Your task to perform on an android device: What's the weather going to be this weekend? Image 0: 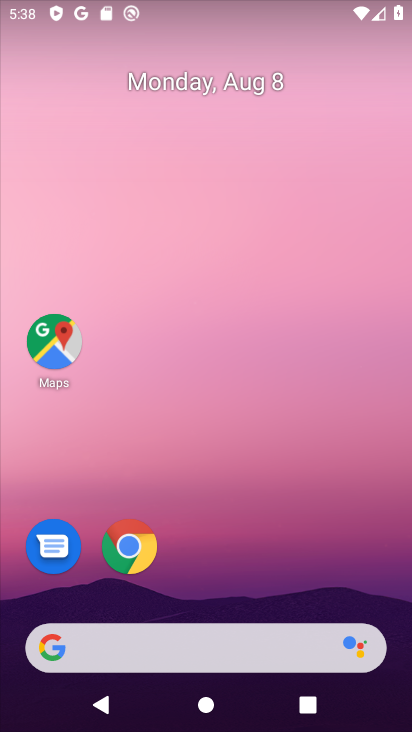
Step 0: drag from (221, 574) to (222, 199)
Your task to perform on an android device: What's the weather going to be this weekend? Image 1: 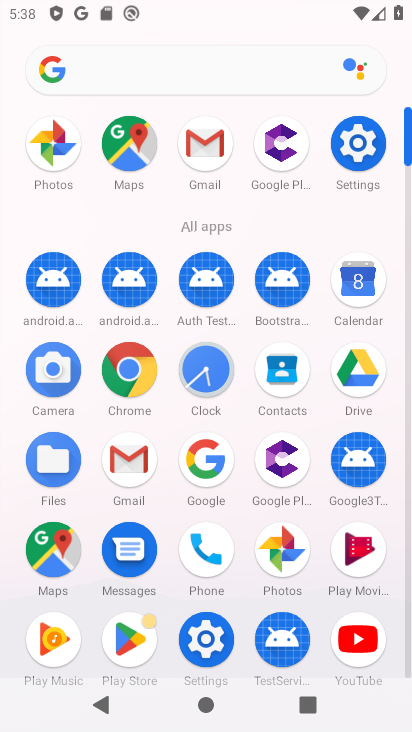
Step 1: click (209, 438)
Your task to perform on an android device: What's the weather going to be this weekend? Image 2: 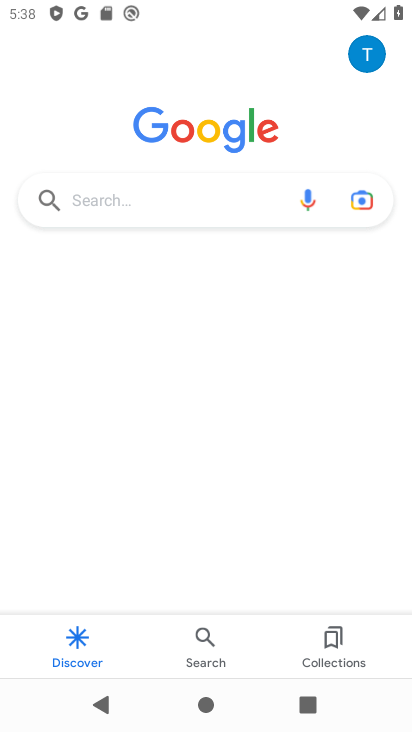
Step 2: click (145, 209)
Your task to perform on an android device: What's the weather going to be this weekend? Image 3: 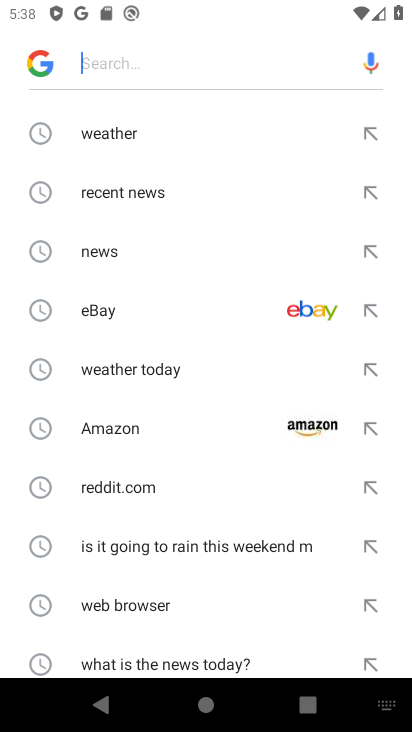
Step 3: click (115, 141)
Your task to perform on an android device: What's the weather going to be this weekend? Image 4: 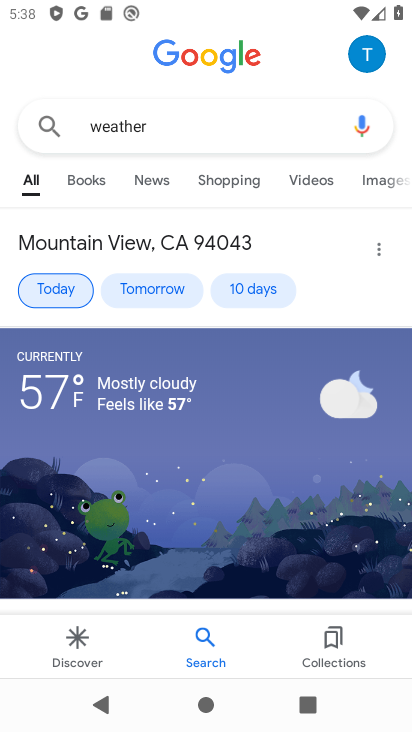
Step 4: click (270, 175)
Your task to perform on an android device: What's the weather going to be this weekend? Image 5: 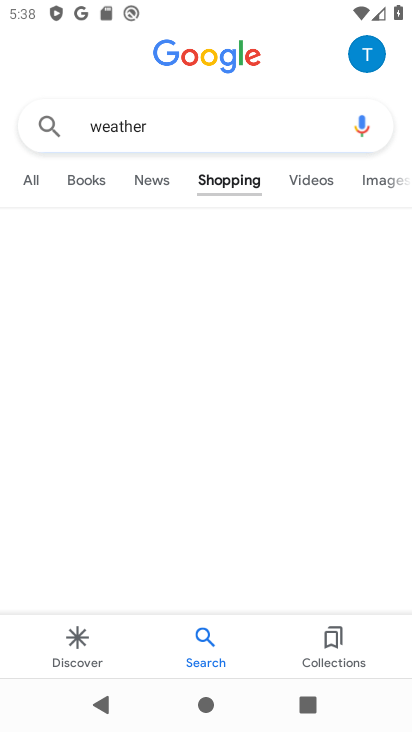
Step 5: click (270, 287)
Your task to perform on an android device: What's the weather going to be this weekend? Image 6: 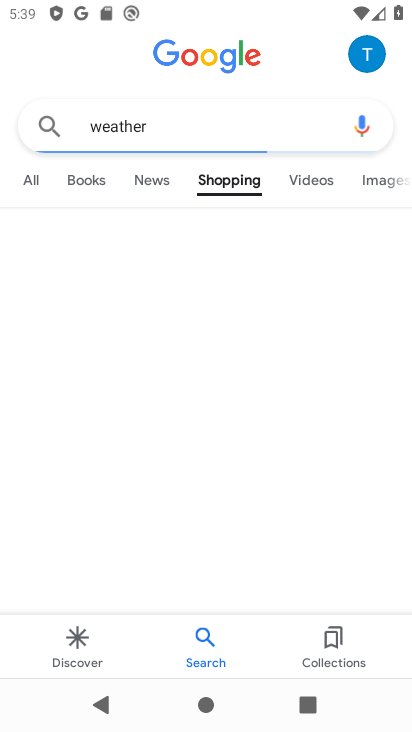
Step 6: click (37, 184)
Your task to perform on an android device: What's the weather going to be this weekend? Image 7: 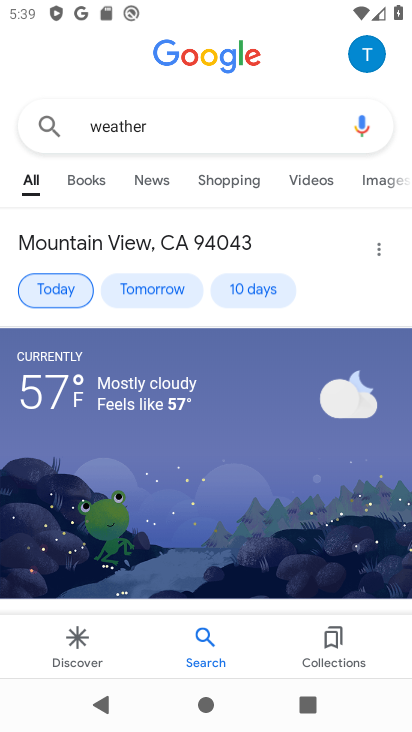
Step 7: click (252, 298)
Your task to perform on an android device: What's the weather going to be this weekend? Image 8: 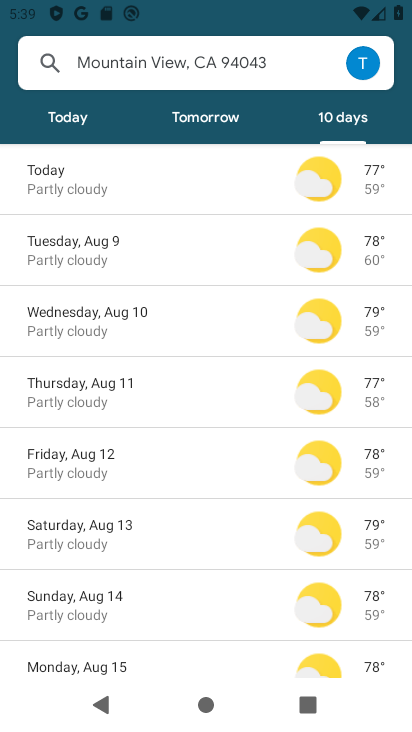
Step 8: task complete